Your task to perform on an android device: Go to Yahoo.com Image 0: 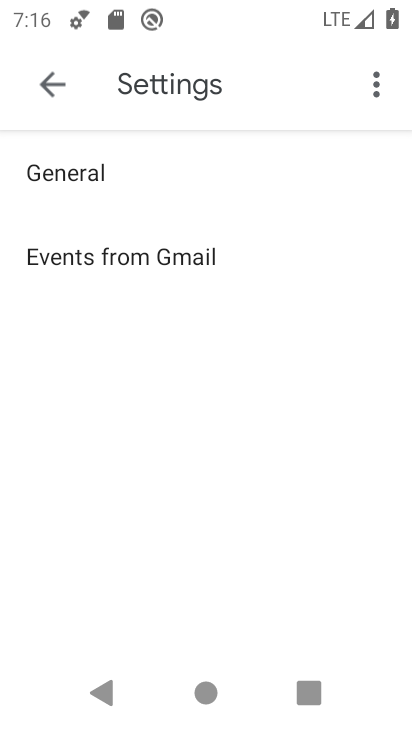
Step 0: press home button
Your task to perform on an android device: Go to Yahoo.com Image 1: 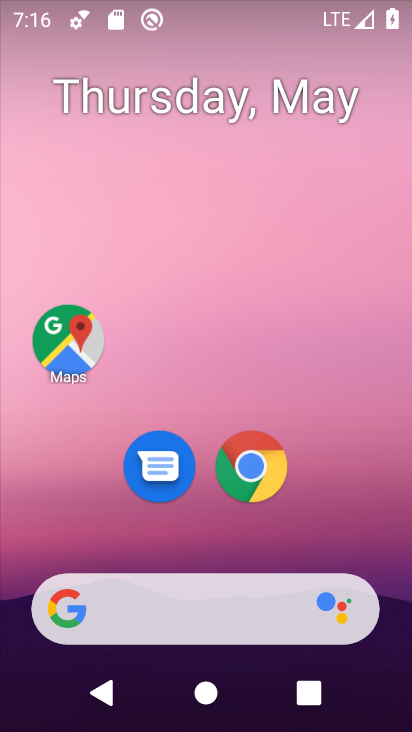
Step 1: click (209, 600)
Your task to perform on an android device: Go to Yahoo.com Image 2: 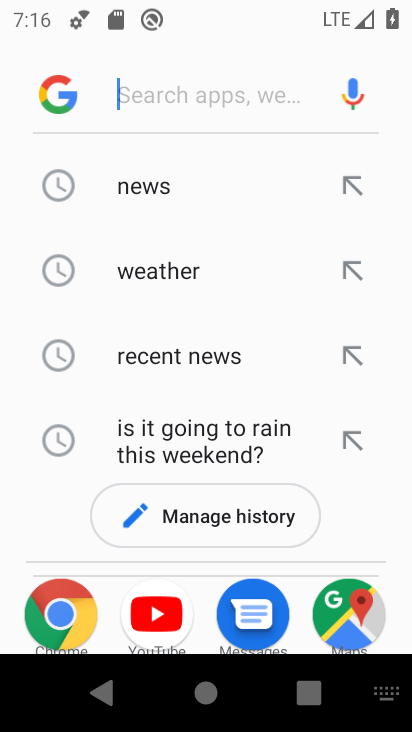
Step 2: type "yahoo.com"
Your task to perform on an android device: Go to Yahoo.com Image 3: 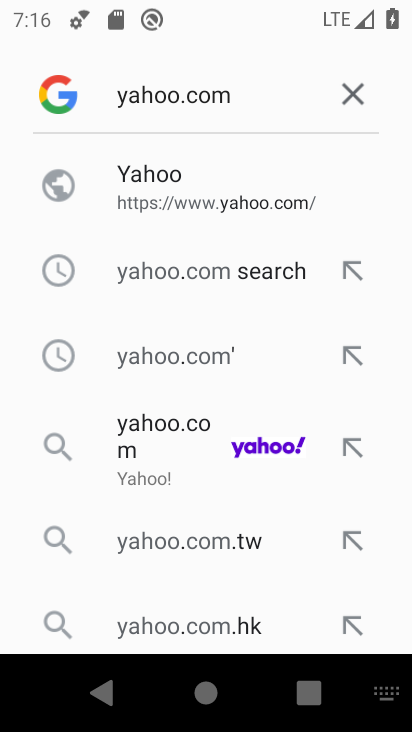
Step 3: click (266, 192)
Your task to perform on an android device: Go to Yahoo.com Image 4: 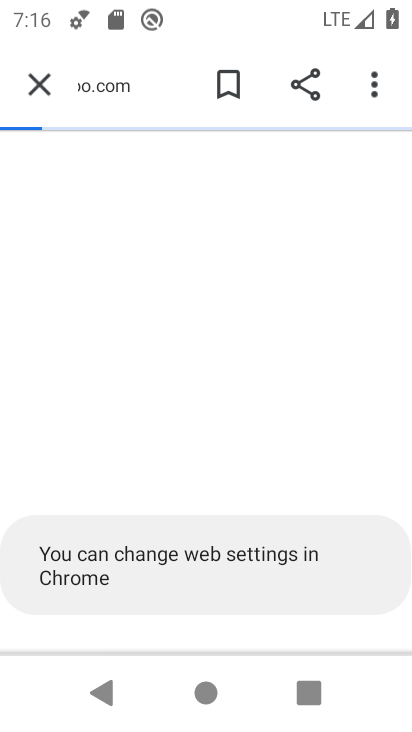
Step 4: task complete